Your task to perform on an android device: toggle improve location accuracy Image 0: 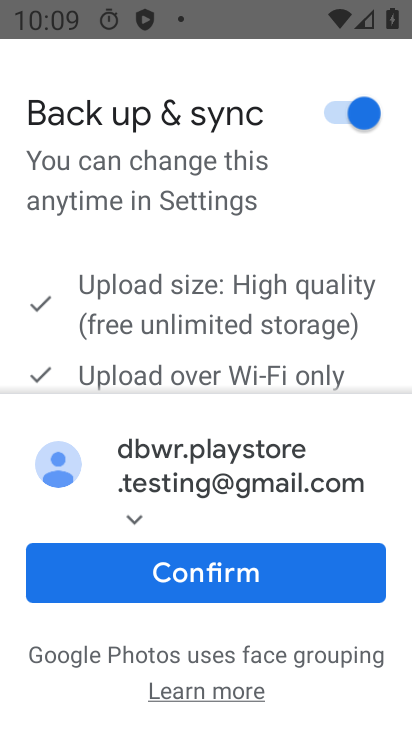
Step 0: press home button
Your task to perform on an android device: toggle improve location accuracy Image 1: 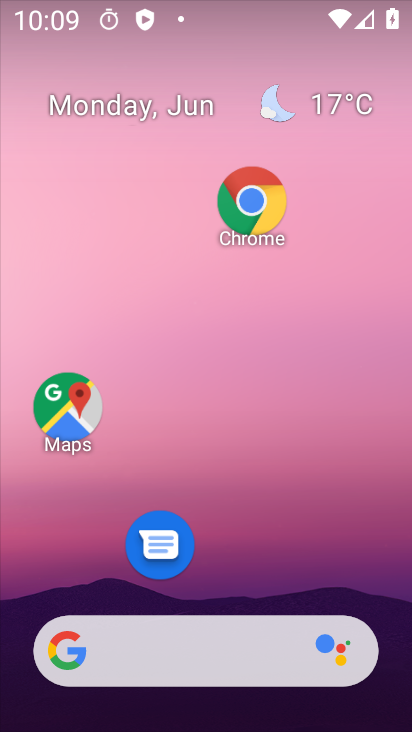
Step 1: drag from (216, 588) to (159, 43)
Your task to perform on an android device: toggle improve location accuracy Image 2: 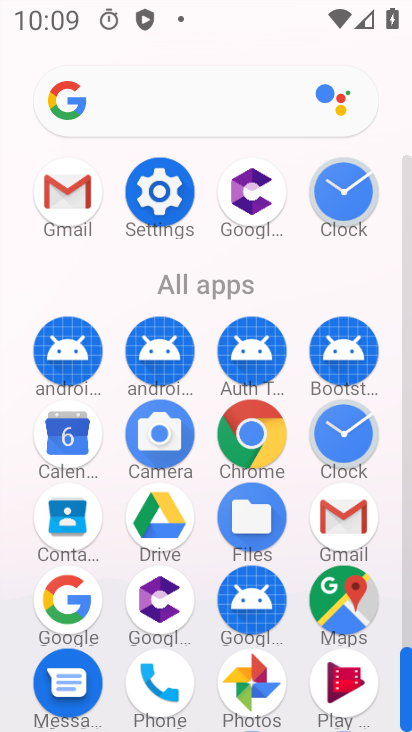
Step 2: click (149, 190)
Your task to perform on an android device: toggle improve location accuracy Image 3: 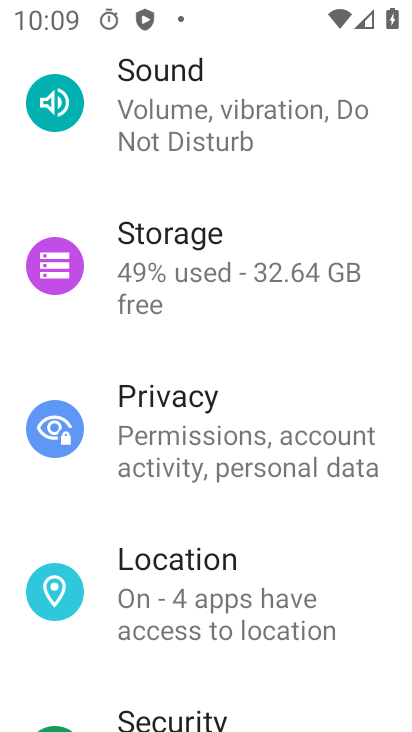
Step 3: click (201, 564)
Your task to perform on an android device: toggle improve location accuracy Image 4: 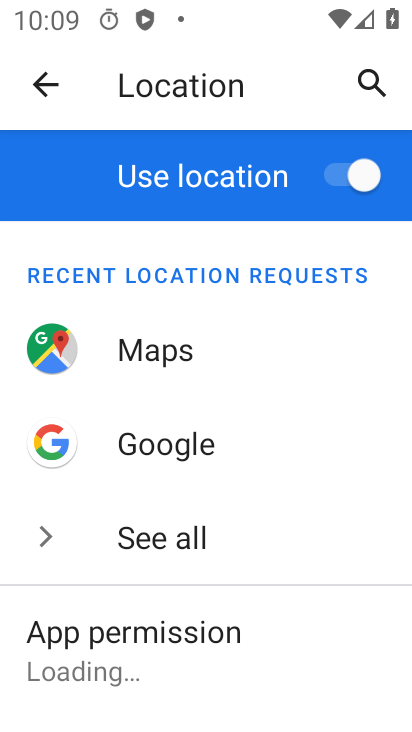
Step 4: drag from (211, 679) to (167, 191)
Your task to perform on an android device: toggle improve location accuracy Image 5: 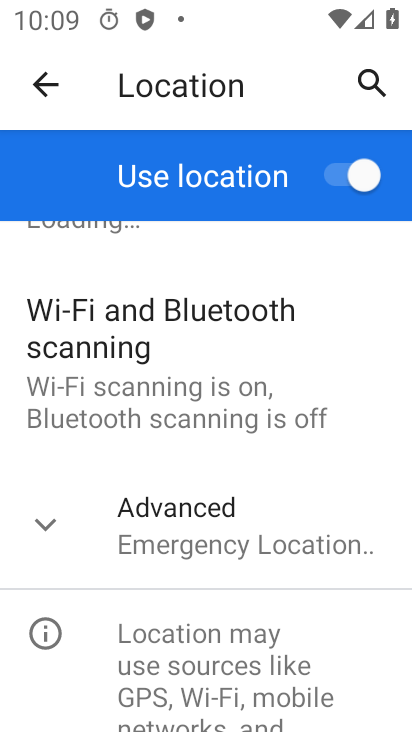
Step 5: click (151, 520)
Your task to perform on an android device: toggle improve location accuracy Image 6: 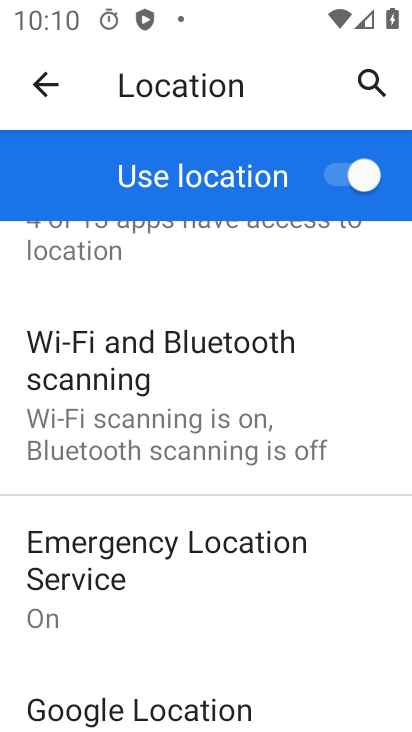
Step 6: click (144, 700)
Your task to perform on an android device: toggle improve location accuracy Image 7: 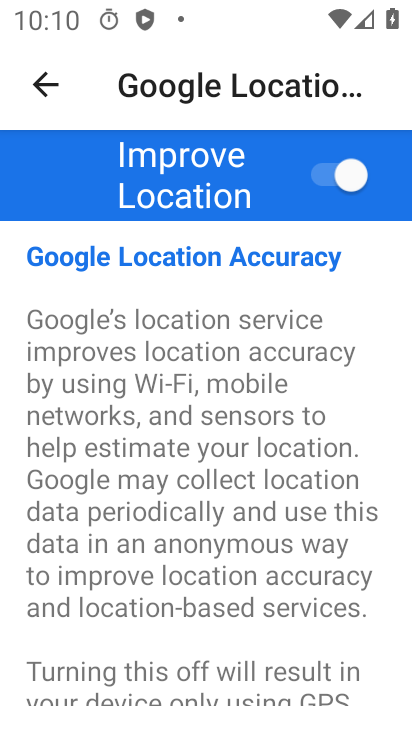
Step 7: click (317, 199)
Your task to perform on an android device: toggle improve location accuracy Image 8: 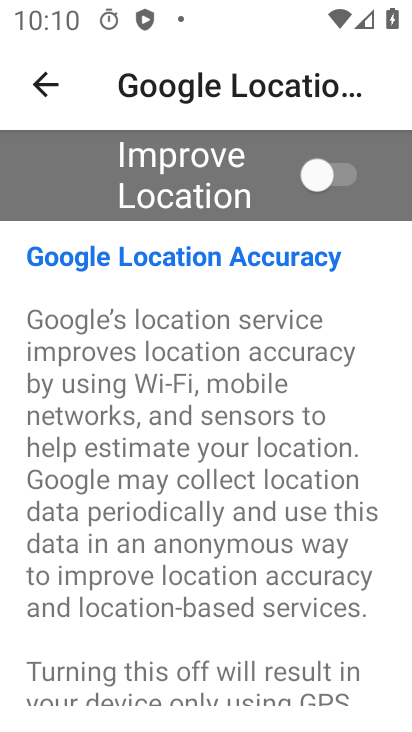
Step 8: task complete